Your task to perform on an android device: Turn off the flashlight Image 0: 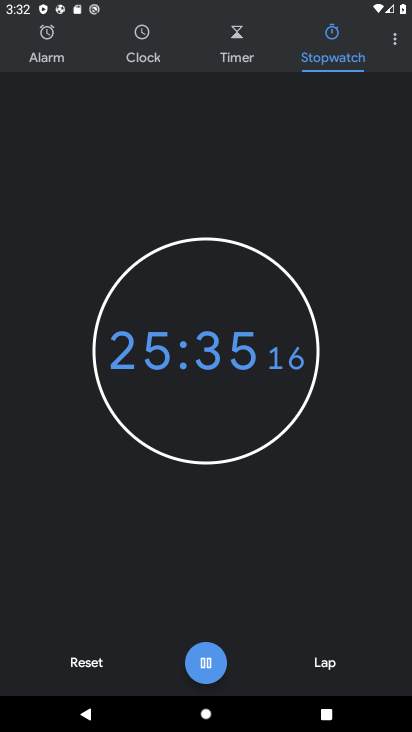
Step 0: press home button
Your task to perform on an android device: Turn off the flashlight Image 1: 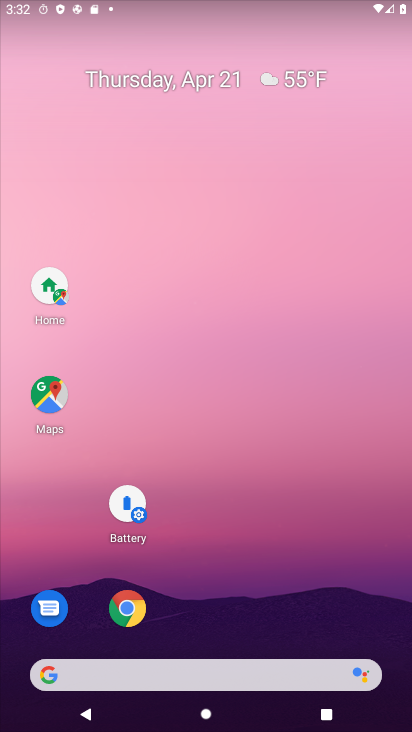
Step 1: drag from (320, 368) to (341, 10)
Your task to perform on an android device: Turn off the flashlight Image 2: 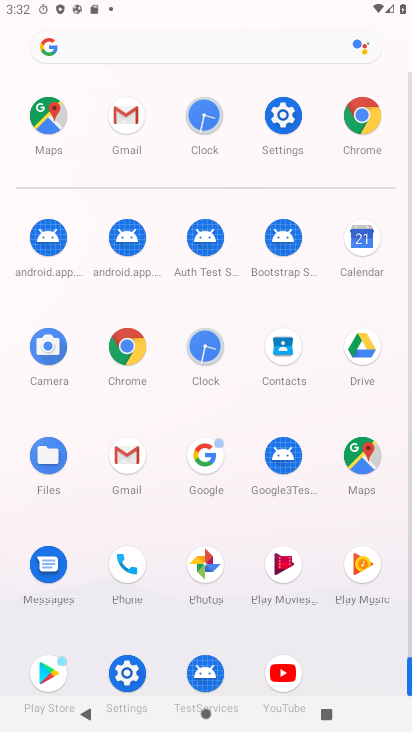
Step 2: click (282, 119)
Your task to perform on an android device: Turn off the flashlight Image 3: 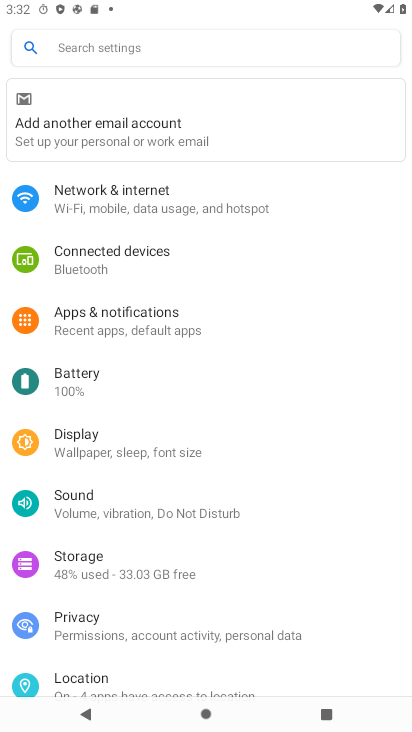
Step 3: task complete